Your task to perform on an android device: Search for pizza restaurants on Maps Image 0: 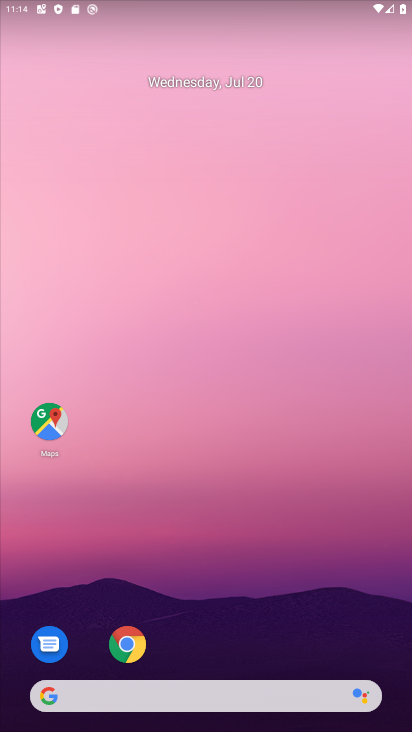
Step 0: click (54, 428)
Your task to perform on an android device: Search for pizza restaurants on Maps Image 1: 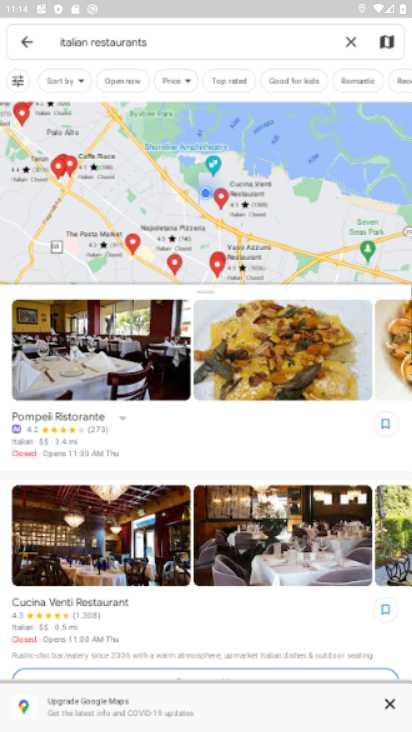
Step 1: click (345, 45)
Your task to perform on an android device: Search for pizza restaurants on Maps Image 2: 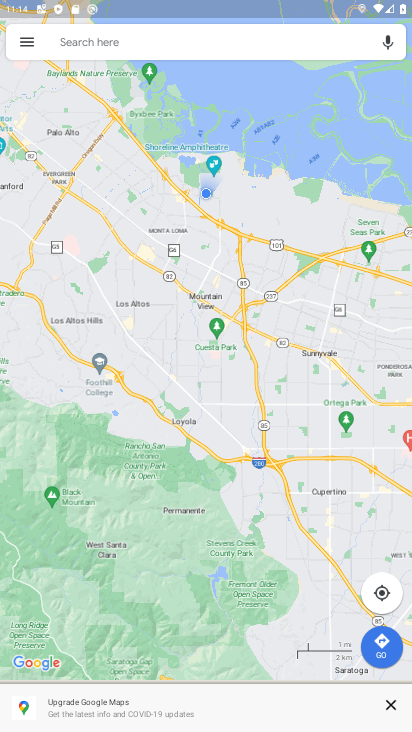
Step 2: click (158, 41)
Your task to perform on an android device: Search for pizza restaurants on Maps Image 3: 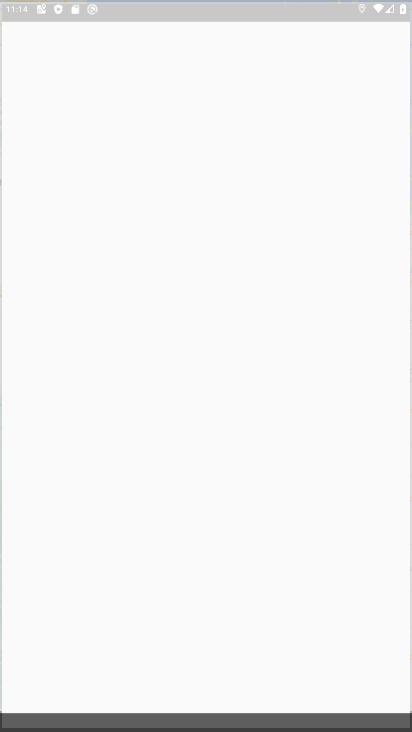
Step 3: click (104, 458)
Your task to perform on an android device: Search for pizza restaurants on Maps Image 4: 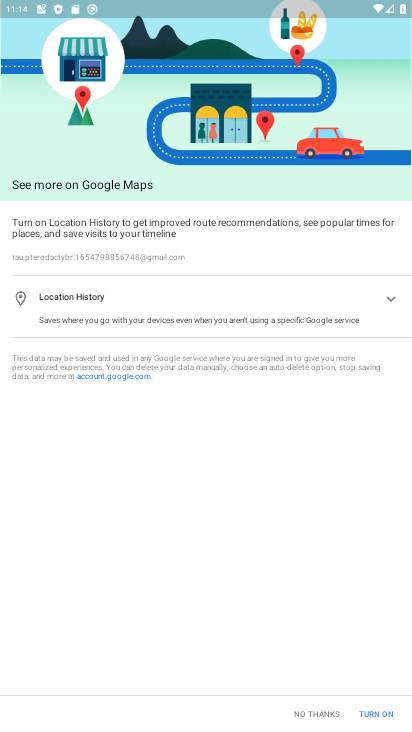
Step 4: click (369, 705)
Your task to perform on an android device: Search for pizza restaurants on Maps Image 5: 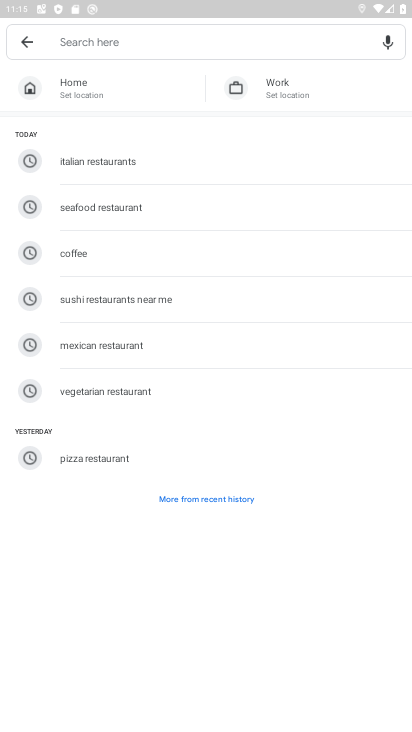
Step 5: click (101, 465)
Your task to perform on an android device: Search for pizza restaurants on Maps Image 6: 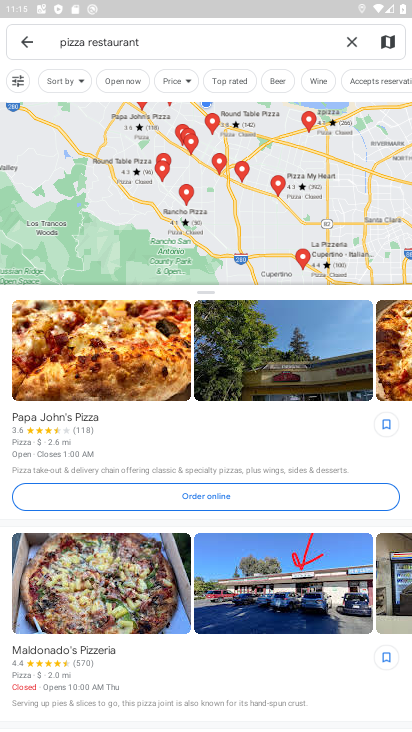
Step 6: task complete